Your task to perform on an android device: change alarm snooze length Image 0: 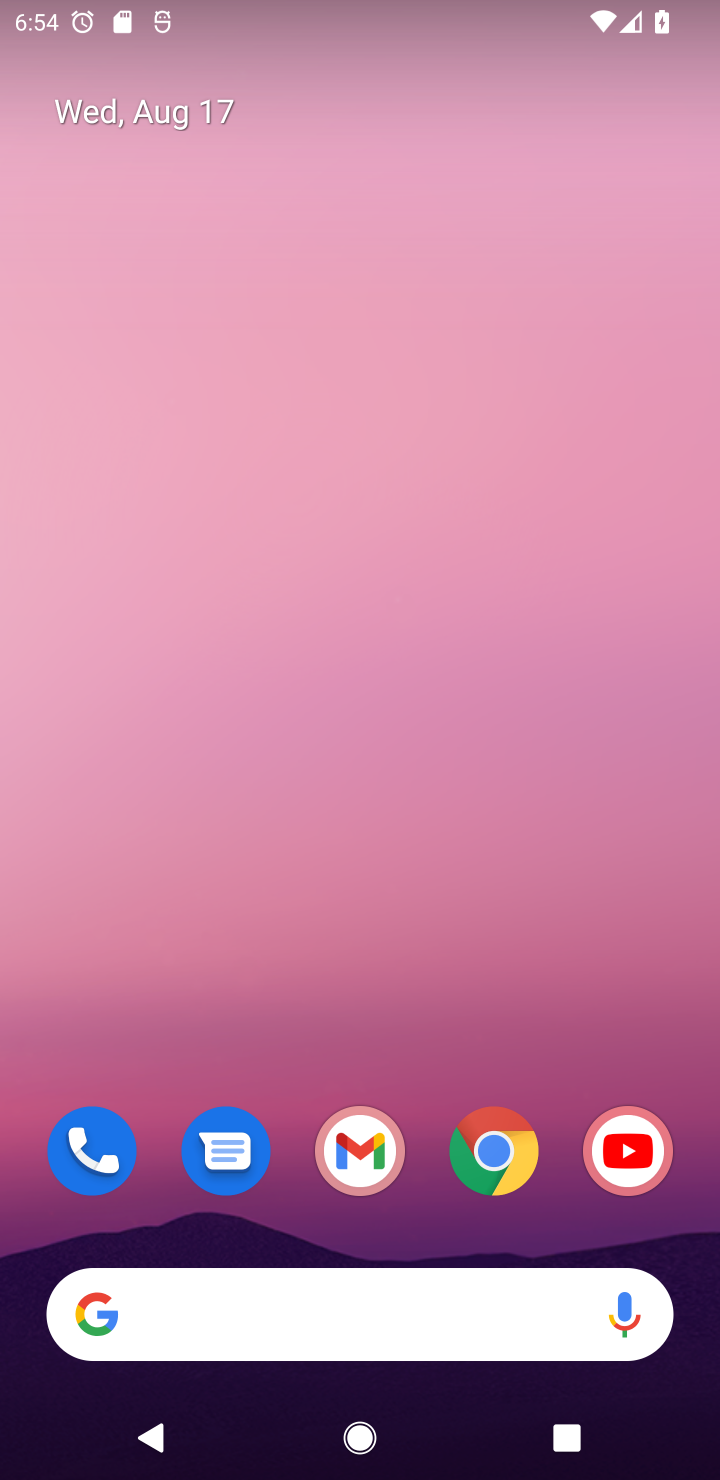
Step 0: drag from (262, 1251) to (317, 303)
Your task to perform on an android device: change alarm snooze length Image 1: 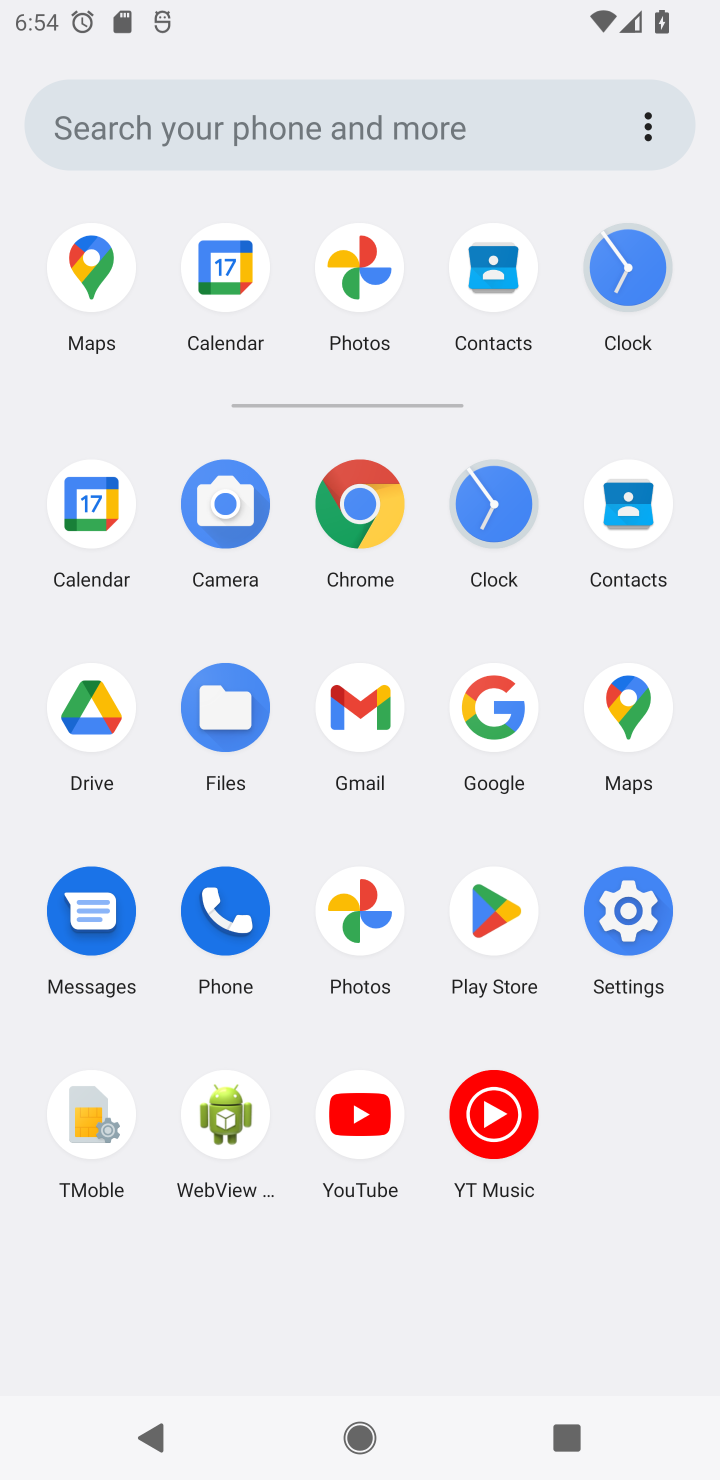
Step 1: click (617, 946)
Your task to perform on an android device: change alarm snooze length Image 2: 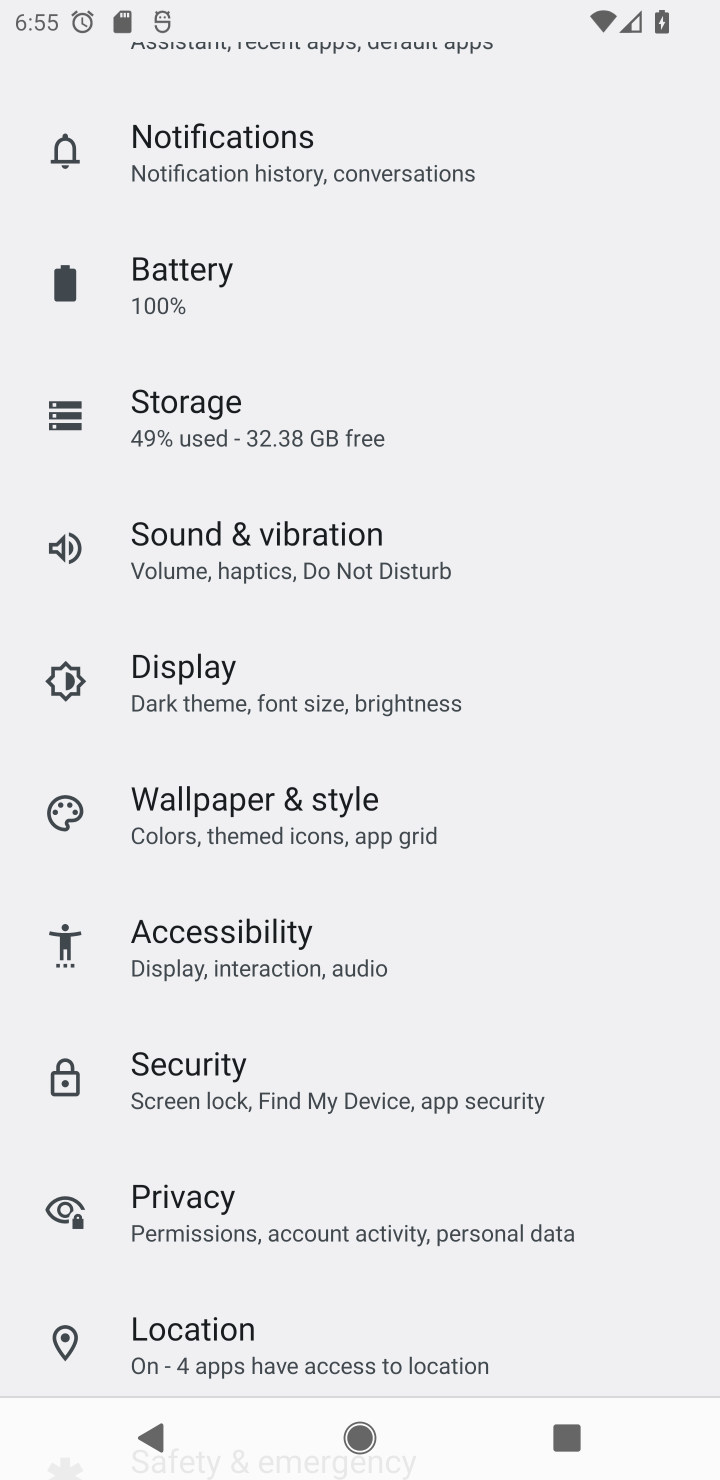
Step 2: press home button
Your task to perform on an android device: change alarm snooze length Image 3: 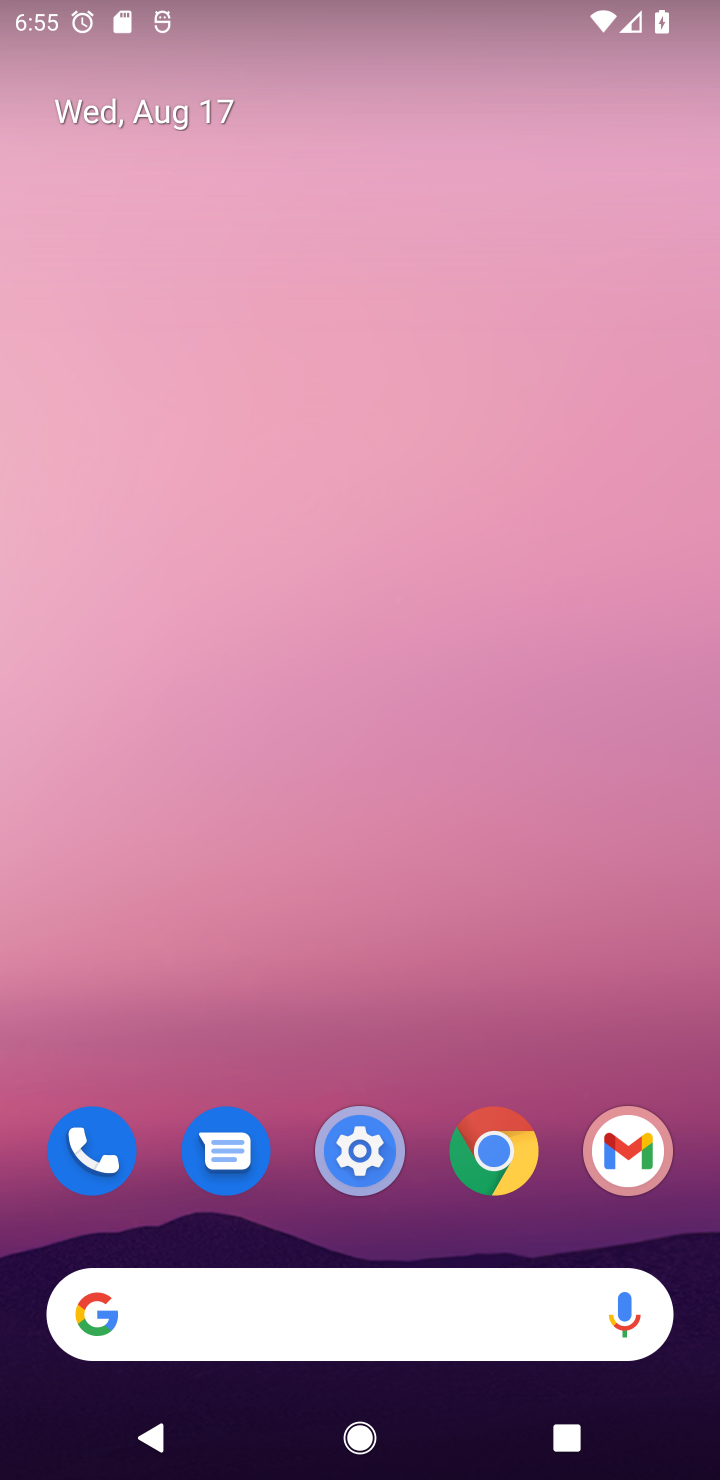
Step 3: drag from (417, 1241) to (407, 24)
Your task to perform on an android device: change alarm snooze length Image 4: 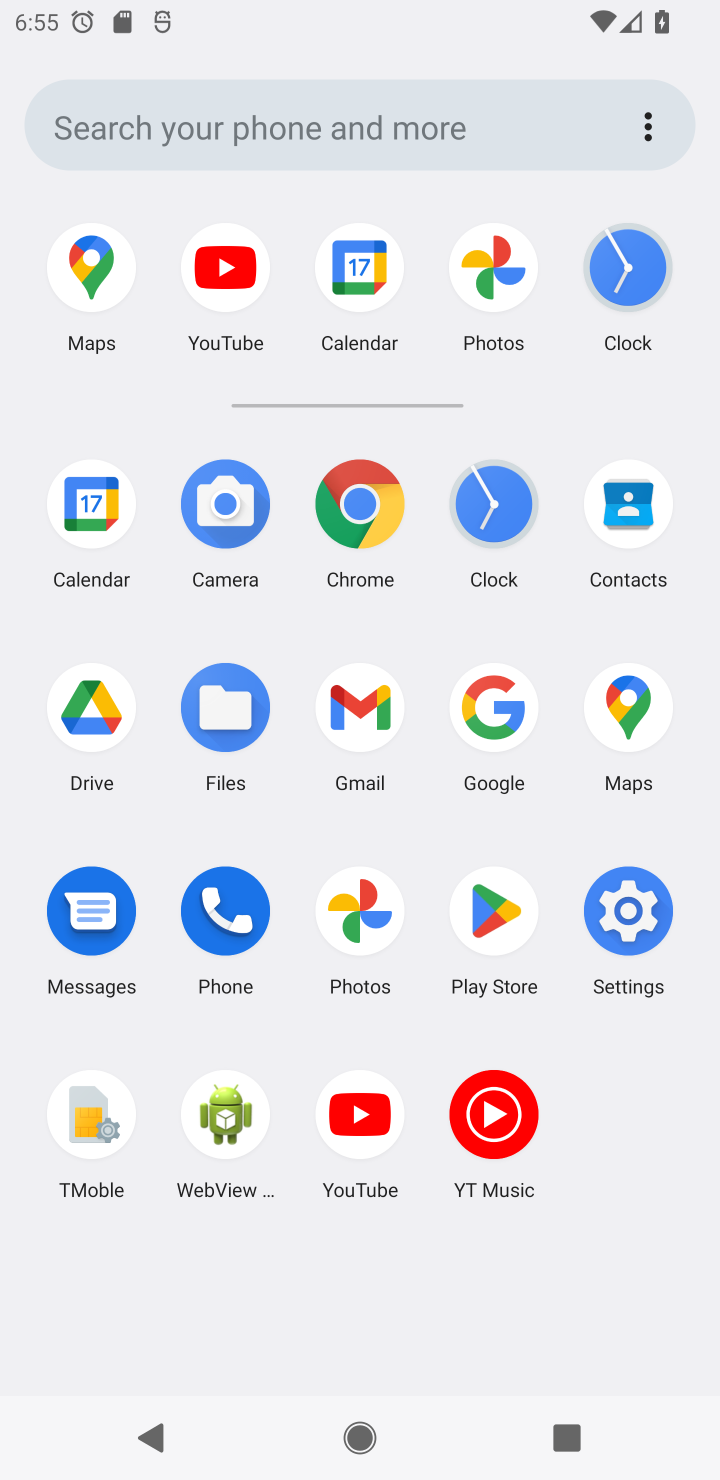
Step 4: click (659, 283)
Your task to perform on an android device: change alarm snooze length Image 5: 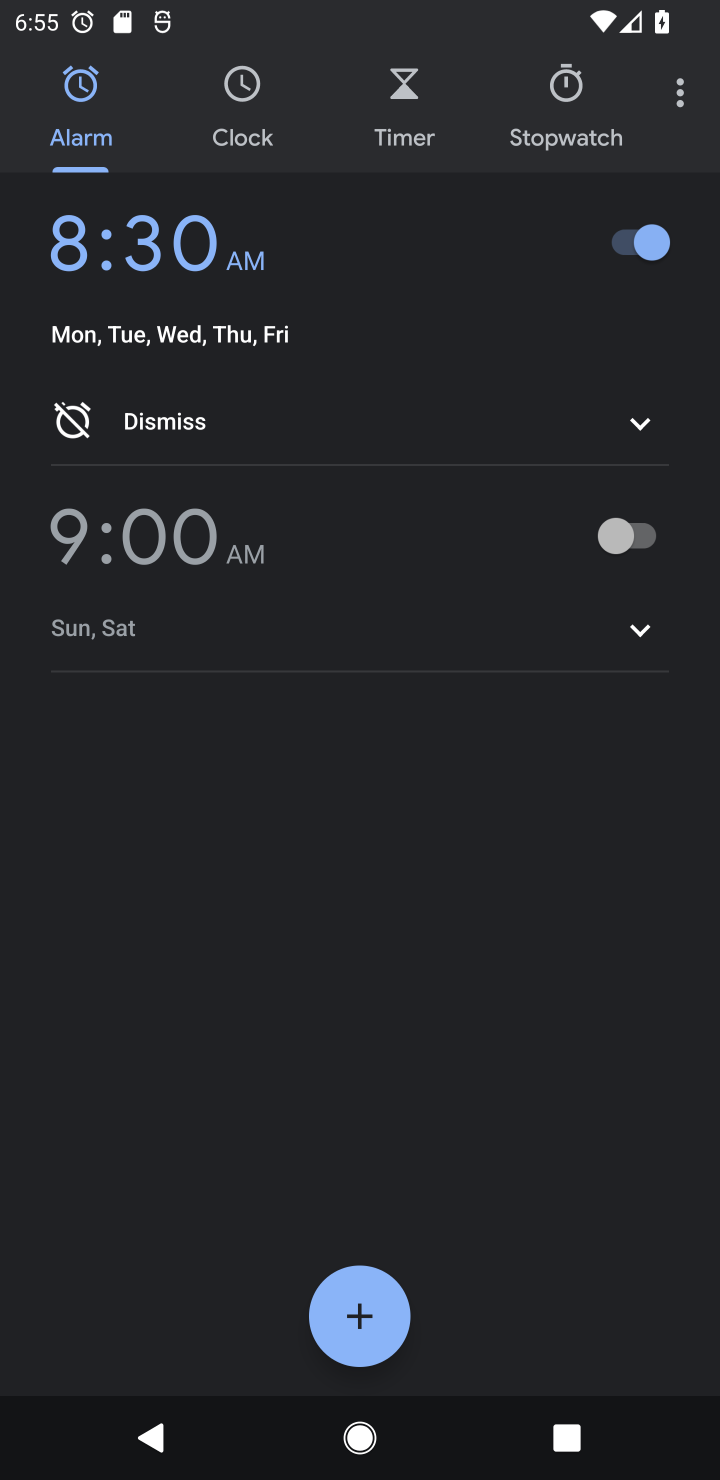
Step 5: task complete